Your task to perform on an android device: toggle priority inbox in the gmail app Image 0: 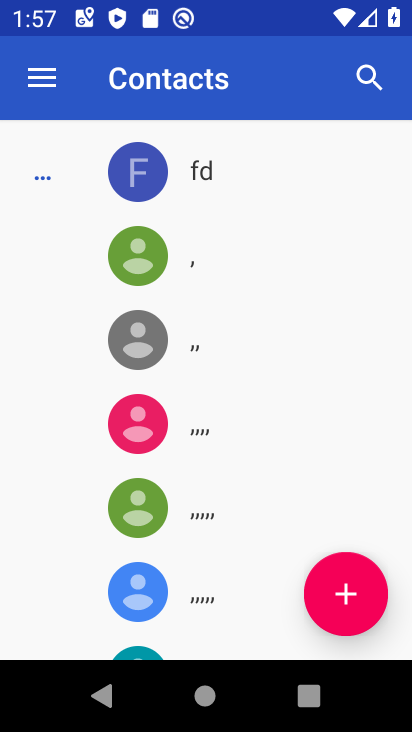
Step 0: press home button
Your task to perform on an android device: toggle priority inbox in the gmail app Image 1: 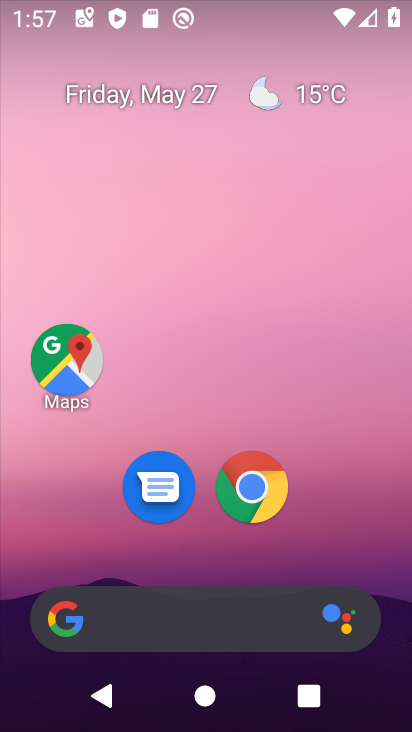
Step 1: drag from (201, 549) to (328, 39)
Your task to perform on an android device: toggle priority inbox in the gmail app Image 2: 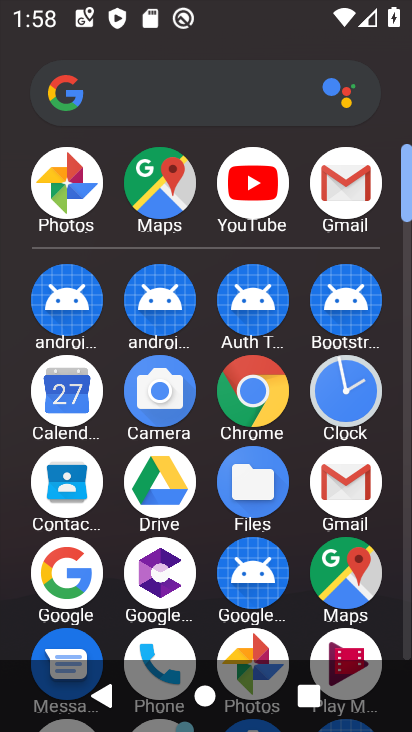
Step 2: click (336, 202)
Your task to perform on an android device: toggle priority inbox in the gmail app Image 3: 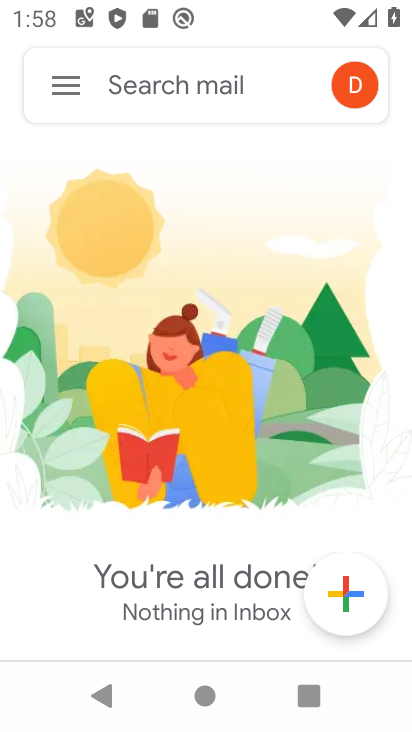
Step 3: click (69, 86)
Your task to perform on an android device: toggle priority inbox in the gmail app Image 4: 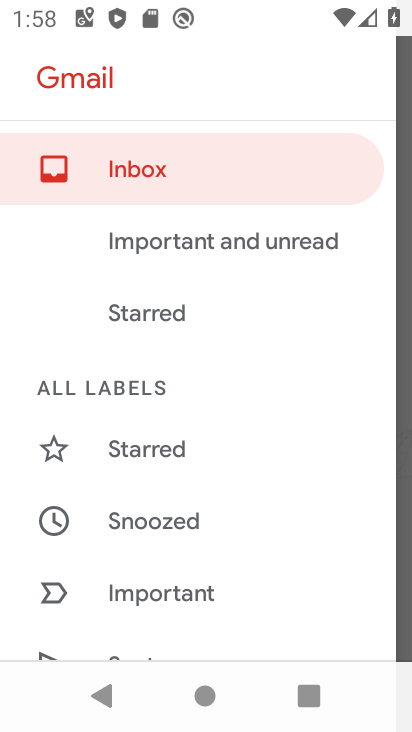
Step 4: drag from (192, 530) to (251, 51)
Your task to perform on an android device: toggle priority inbox in the gmail app Image 5: 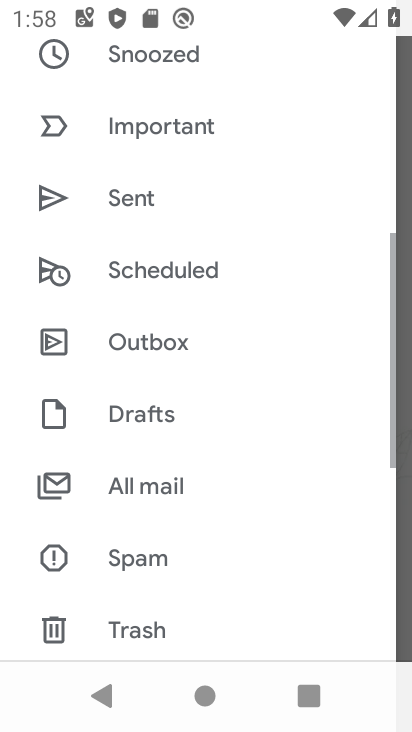
Step 5: drag from (168, 623) to (241, 251)
Your task to perform on an android device: toggle priority inbox in the gmail app Image 6: 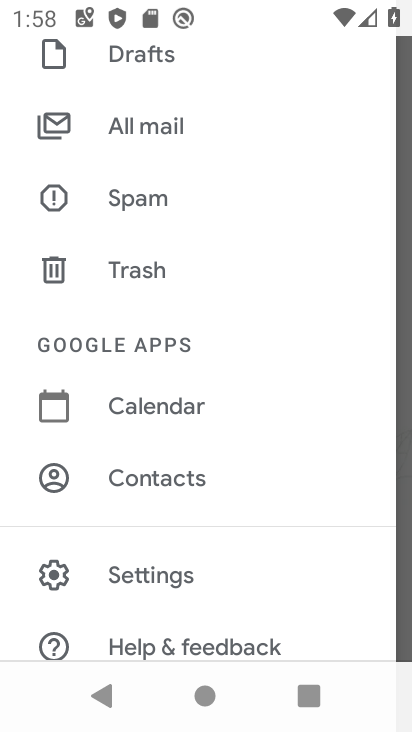
Step 6: click (175, 578)
Your task to perform on an android device: toggle priority inbox in the gmail app Image 7: 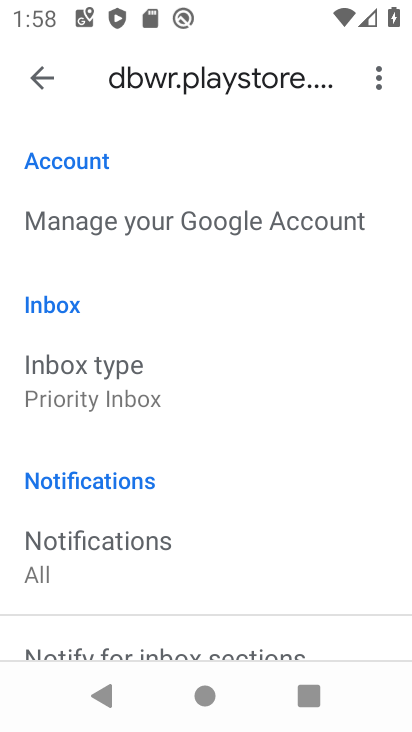
Step 7: task complete